Your task to perform on an android device: add a label to a message in the gmail app Image 0: 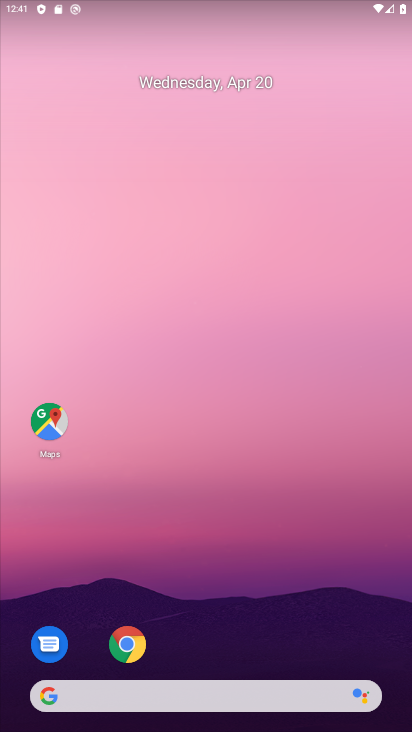
Step 0: drag from (226, 443) to (297, 62)
Your task to perform on an android device: add a label to a message in the gmail app Image 1: 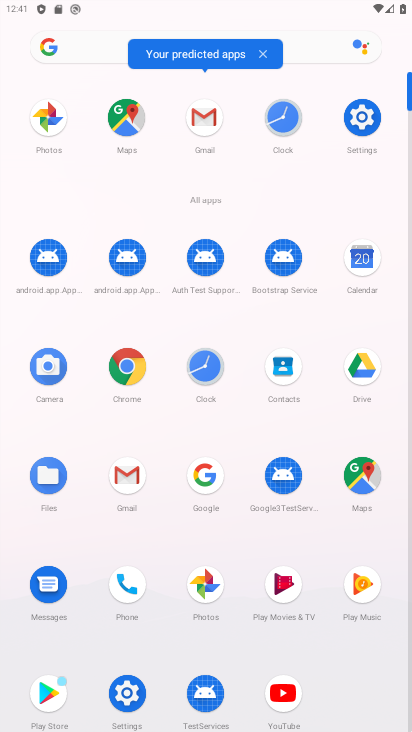
Step 1: click (201, 129)
Your task to perform on an android device: add a label to a message in the gmail app Image 2: 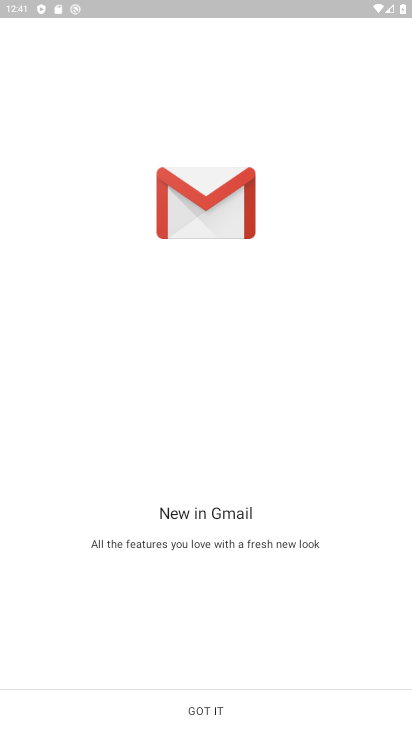
Step 2: click (197, 702)
Your task to perform on an android device: add a label to a message in the gmail app Image 3: 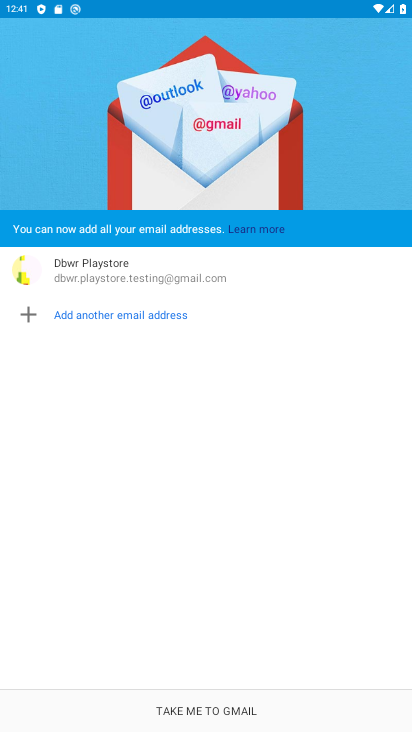
Step 3: click (197, 702)
Your task to perform on an android device: add a label to a message in the gmail app Image 4: 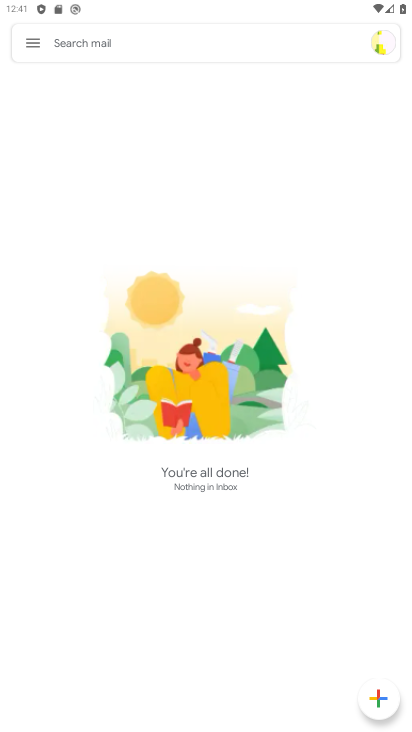
Step 4: task complete